Your task to perform on an android device: When is my next appointment? Image 0: 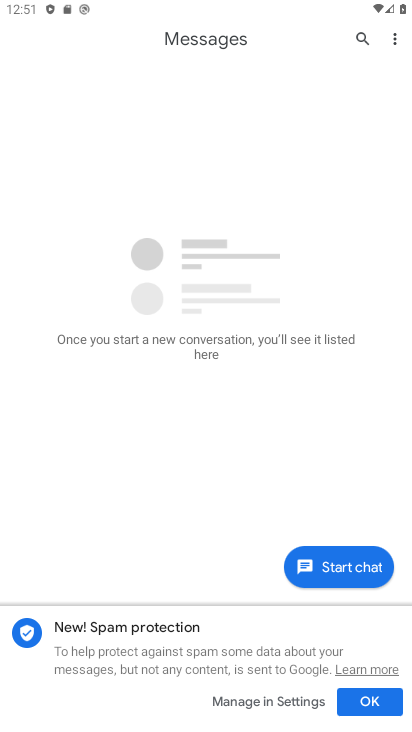
Step 0: press home button
Your task to perform on an android device: When is my next appointment? Image 1: 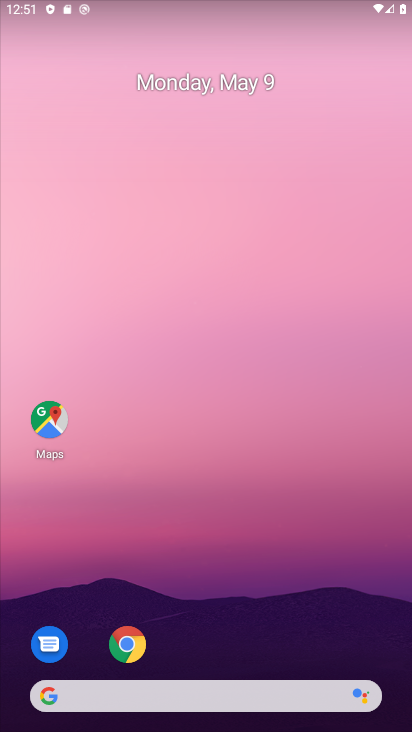
Step 1: drag from (298, 650) to (231, 276)
Your task to perform on an android device: When is my next appointment? Image 2: 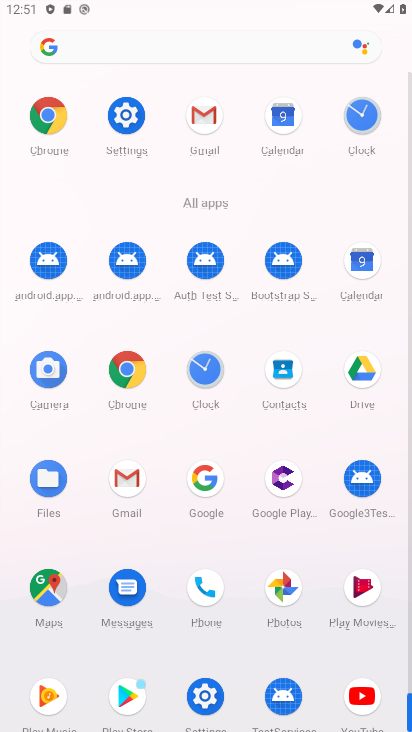
Step 2: click (361, 288)
Your task to perform on an android device: When is my next appointment? Image 3: 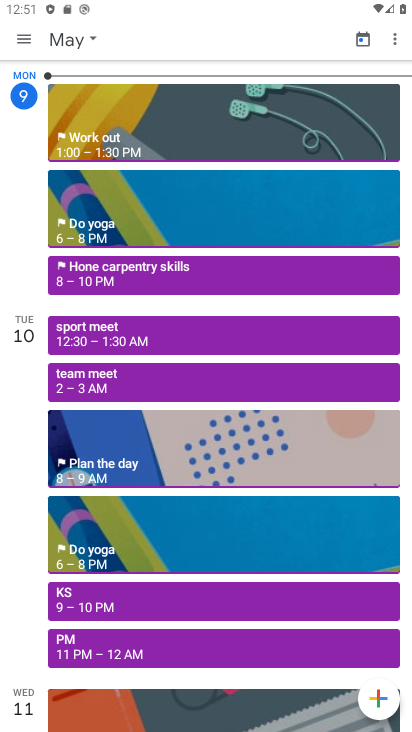
Step 3: task complete